Your task to perform on an android device: open sync settings in chrome Image 0: 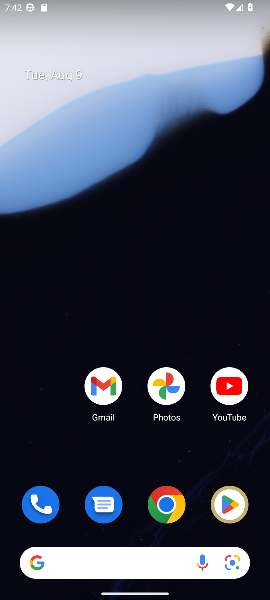
Step 0: click (164, 517)
Your task to perform on an android device: open sync settings in chrome Image 1: 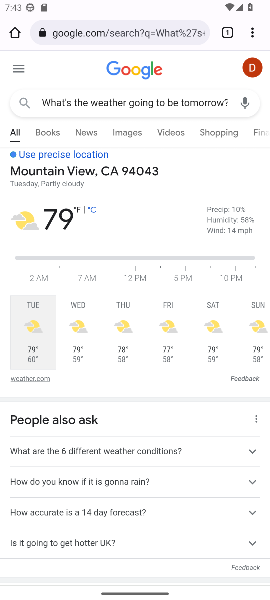
Step 1: click (254, 33)
Your task to perform on an android device: open sync settings in chrome Image 2: 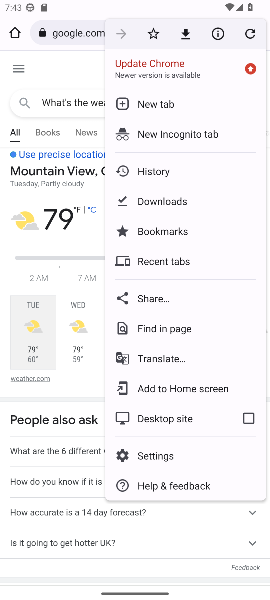
Step 2: click (160, 456)
Your task to perform on an android device: open sync settings in chrome Image 3: 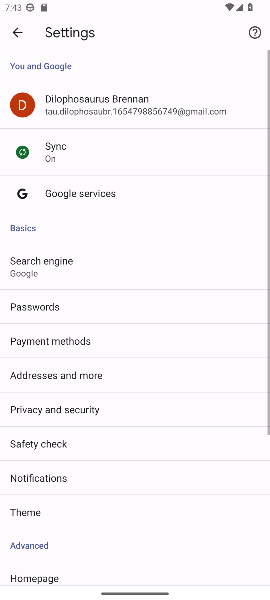
Step 3: click (75, 151)
Your task to perform on an android device: open sync settings in chrome Image 4: 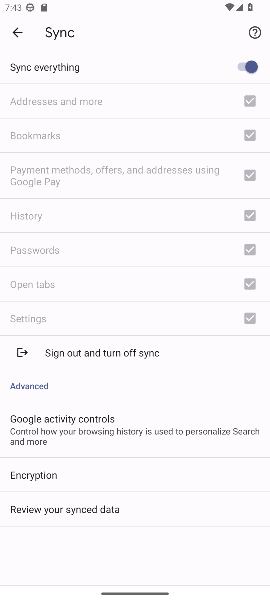
Step 4: task complete